Your task to perform on an android device: move a message to another label in the gmail app Image 0: 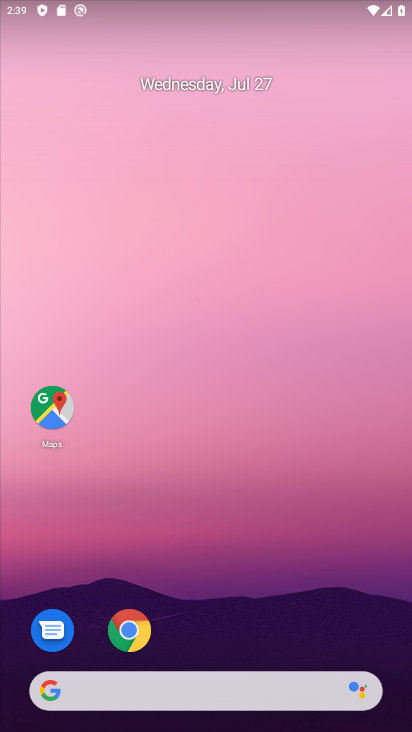
Step 0: drag from (246, 651) to (219, 114)
Your task to perform on an android device: move a message to another label in the gmail app Image 1: 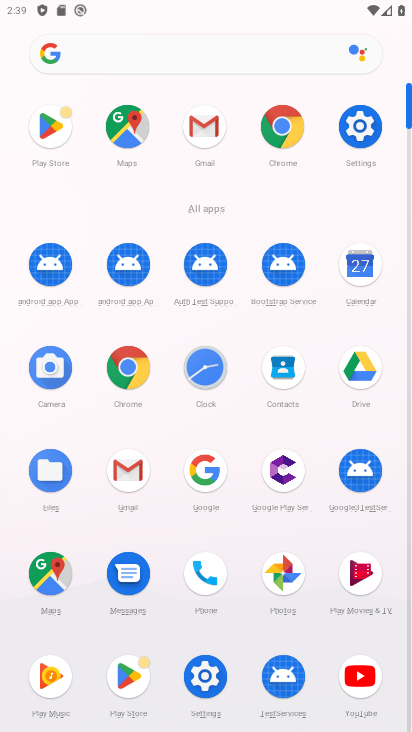
Step 1: click (211, 121)
Your task to perform on an android device: move a message to another label in the gmail app Image 2: 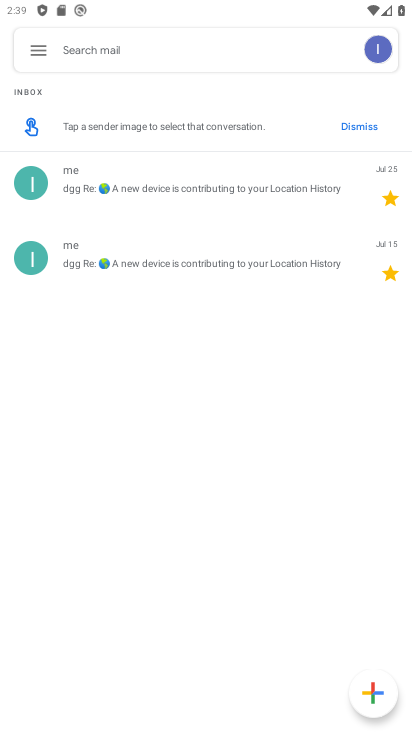
Step 2: click (226, 190)
Your task to perform on an android device: move a message to another label in the gmail app Image 3: 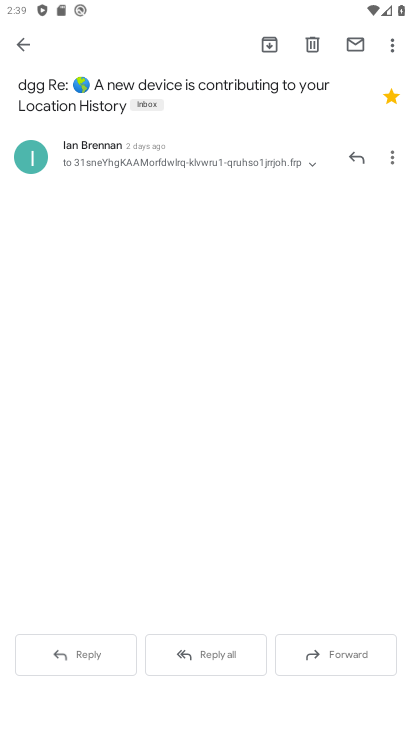
Step 3: click (392, 53)
Your task to perform on an android device: move a message to another label in the gmail app Image 4: 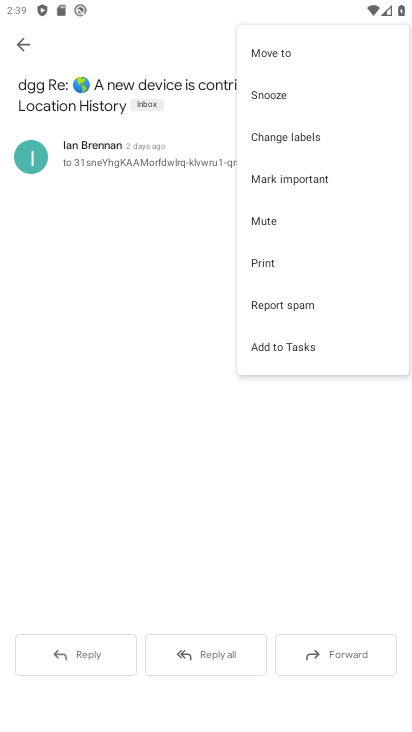
Step 4: click (282, 138)
Your task to perform on an android device: move a message to another label in the gmail app Image 5: 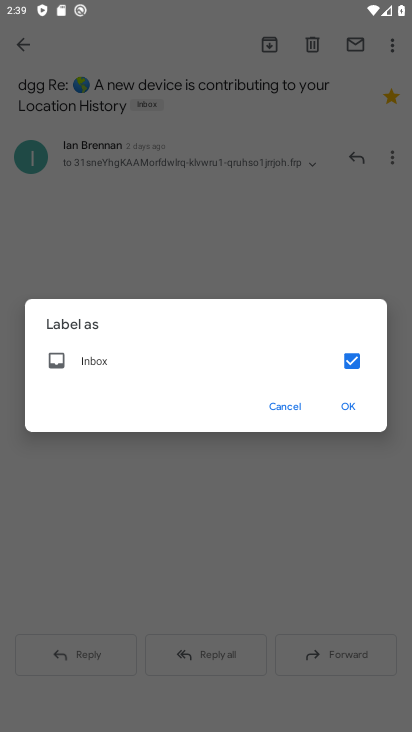
Step 5: click (353, 410)
Your task to perform on an android device: move a message to another label in the gmail app Image 6: 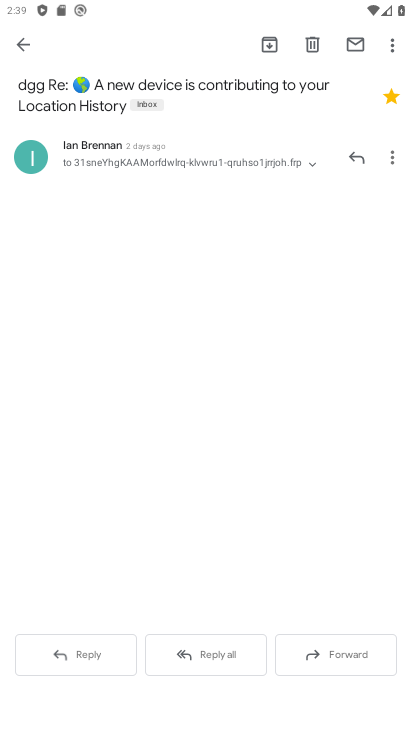
Step 6: task complete